Your task to perform on an android device: turn off airplane mode Image 0: 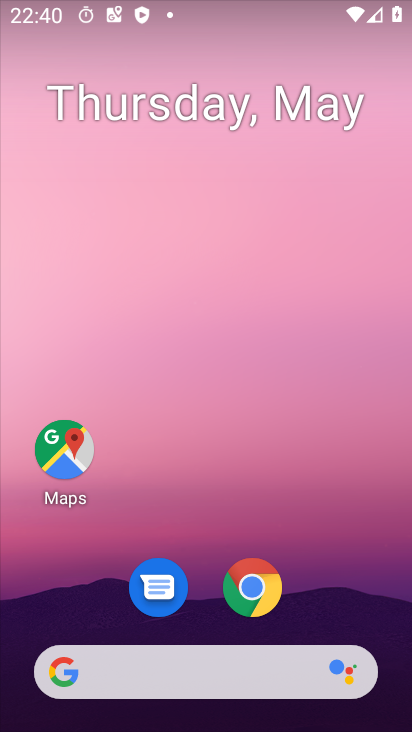
Step 0: drag from (314, 604) to (339, 11)
Your task to perform on an android device: turn off airplane mode Image 1: 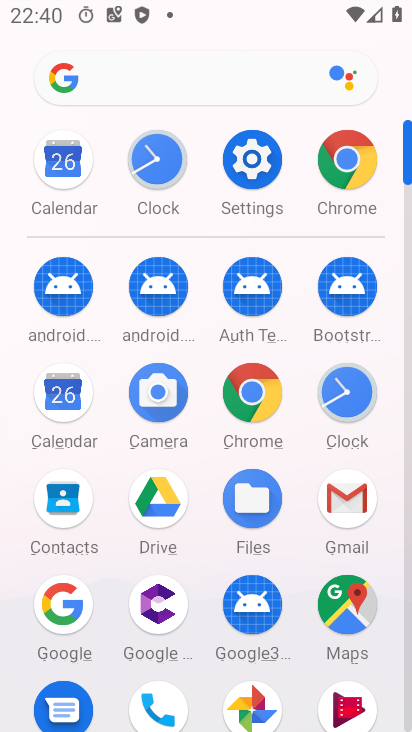
Step 1: click (239, 166)
Your task to perform on an android device: turn off airplane mode Image 2: 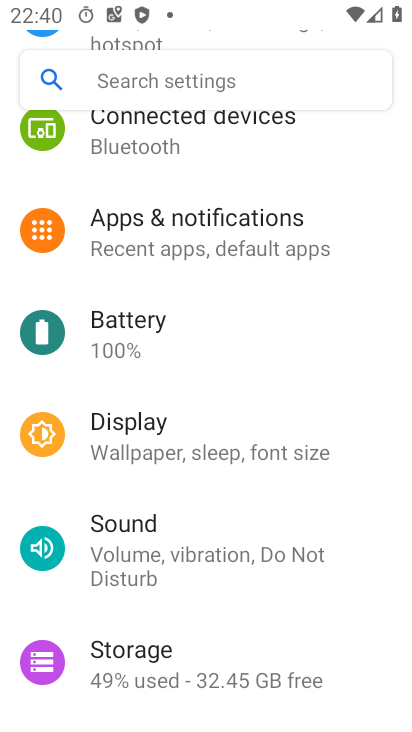
Step 2: drag from (290, 180) to (279, 529)
Your task to perform on an android device: turn off airplane mode Image 3: 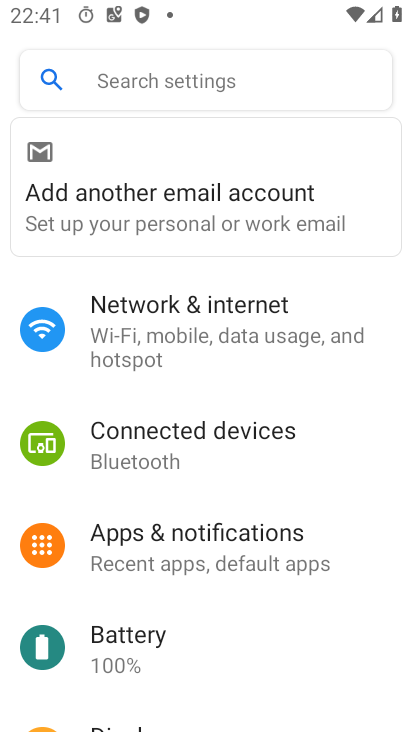
Step 3: click (168, 332)
Your task to perform on an android device: turn off airplane mode Image 4: 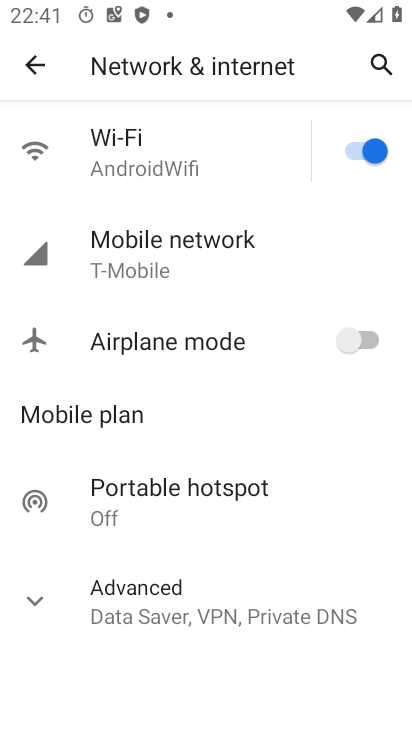
Step 4: task complete